Your task to perform on an android device: turn off sleep mode Image 0: 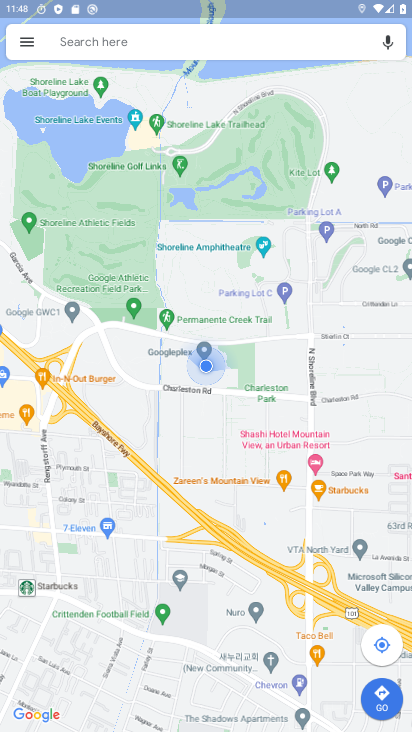
Step 0: press home button
Your task to perform on an android device: turn off sleep mode Image 1: 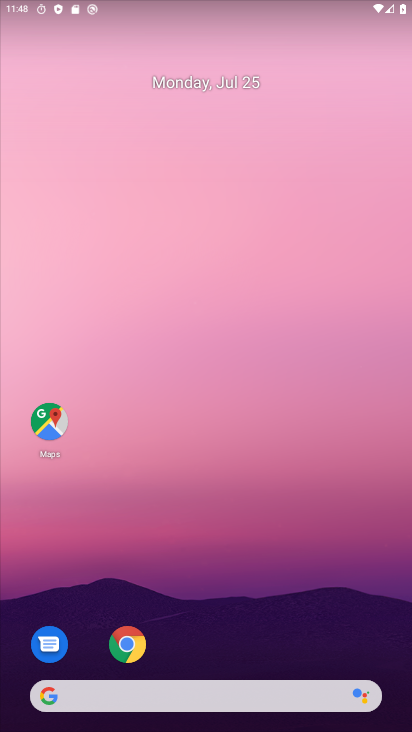
Step 1: drag from (161, 386) to (150, 20)
Your task to perform on an android device: turn off sleep mode Image 2: 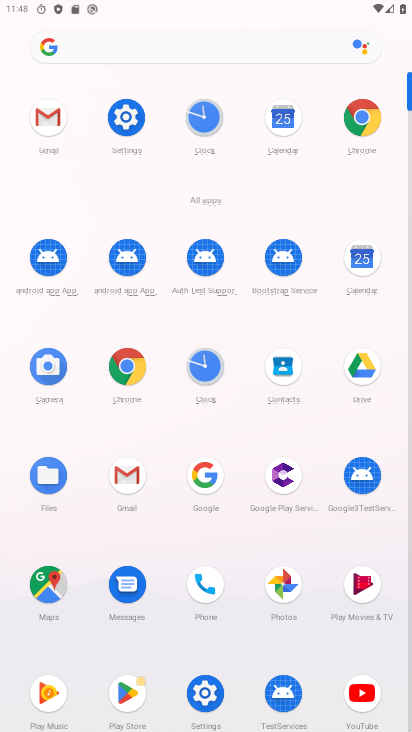
Step 2: click (124, 109)
Your task to perform on an android device: turn off sleep mode Image 3: 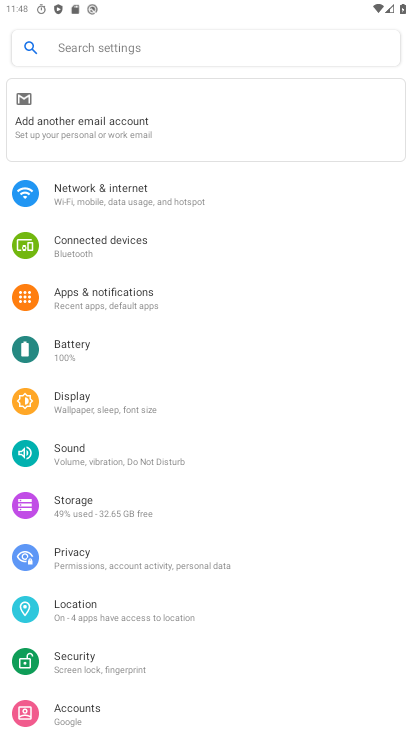
Step 3: click (65, 406)
Your task to perform on an android device: turn off sleep mode Image 4: 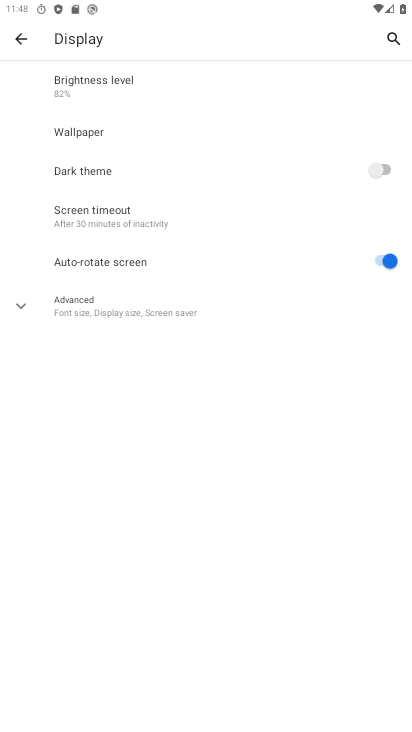
Step 4: click (105, 220)
Your task to perform on an android device: turn off sleep mode Image 5: 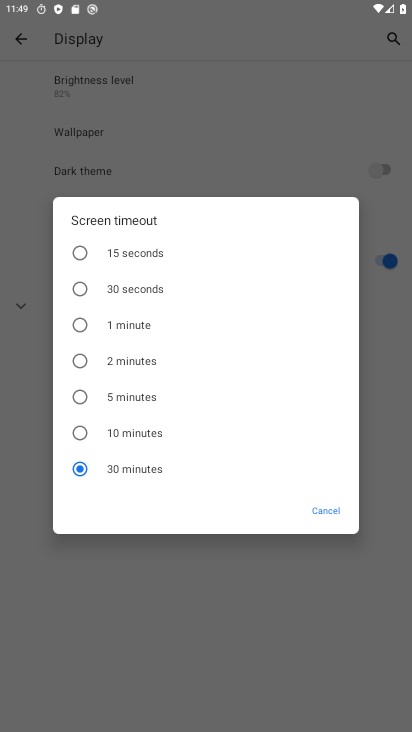
Step 5: task complete